Your task to perform on an android device: Empty the shopping cart on newegg. Add "logitech g933" to the cart on newegg Image 0: 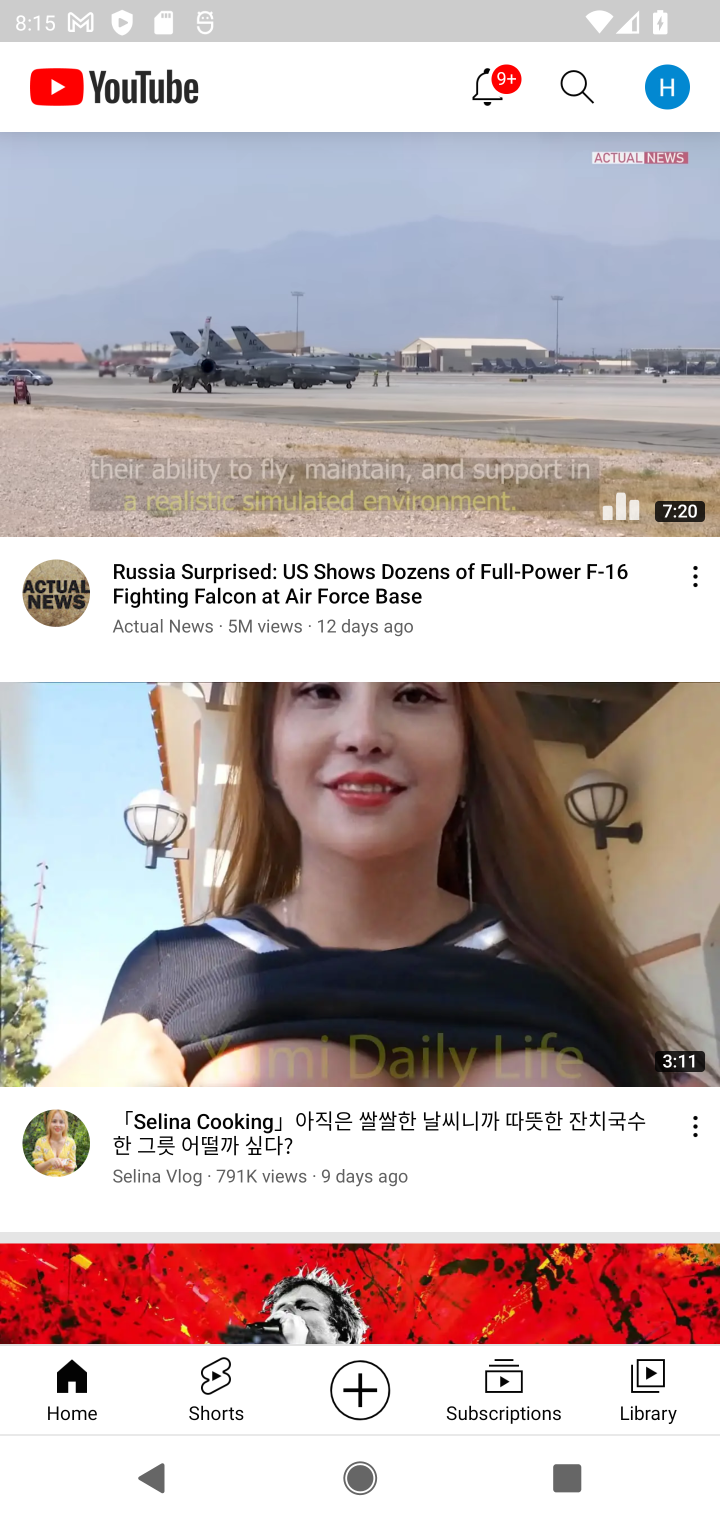
Step 0: press home button
Your task to perform on an android device: Empty the shopping cart on newegg. Add "logitech g933" to the cart on newegg Image 1: 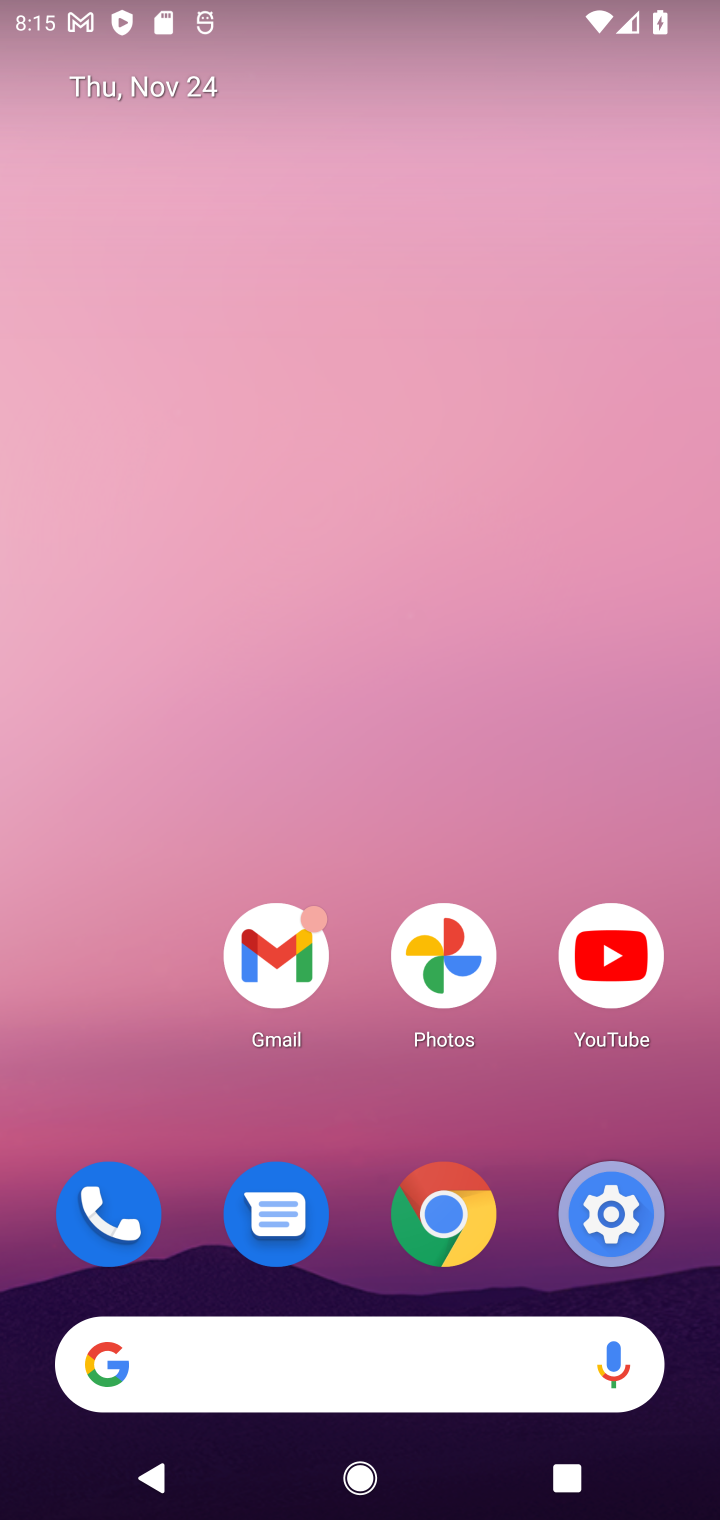
Step 1: click (284, 1361)
Your task to perform on an android device: Empty the shopping cart on newegg. Add "logitech g933" to the cart on newegg Image 2: 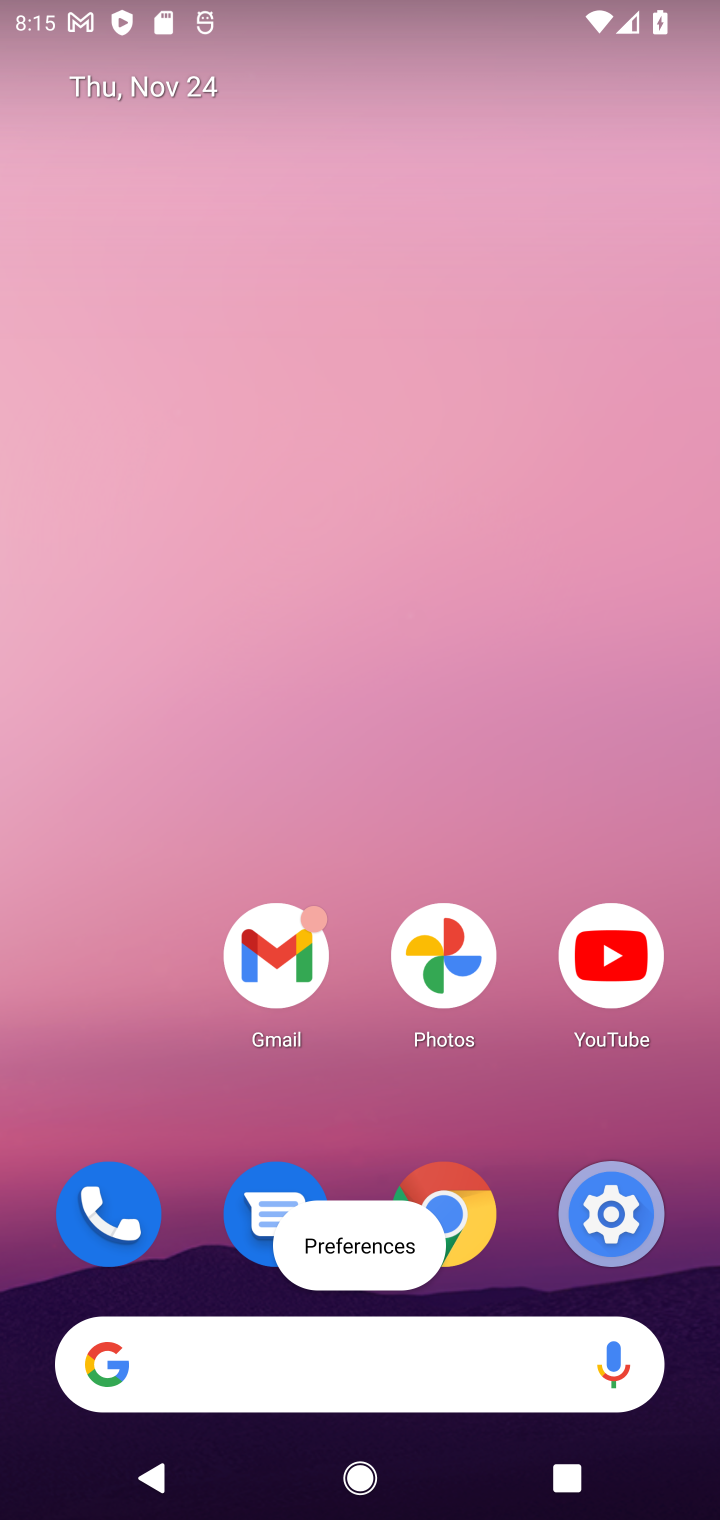
Step 2: type "newegg"
Your task to perform on an android device: Empty the shopping cart on newegg. Add "logitech g933" to the cart on newegg Image 3: 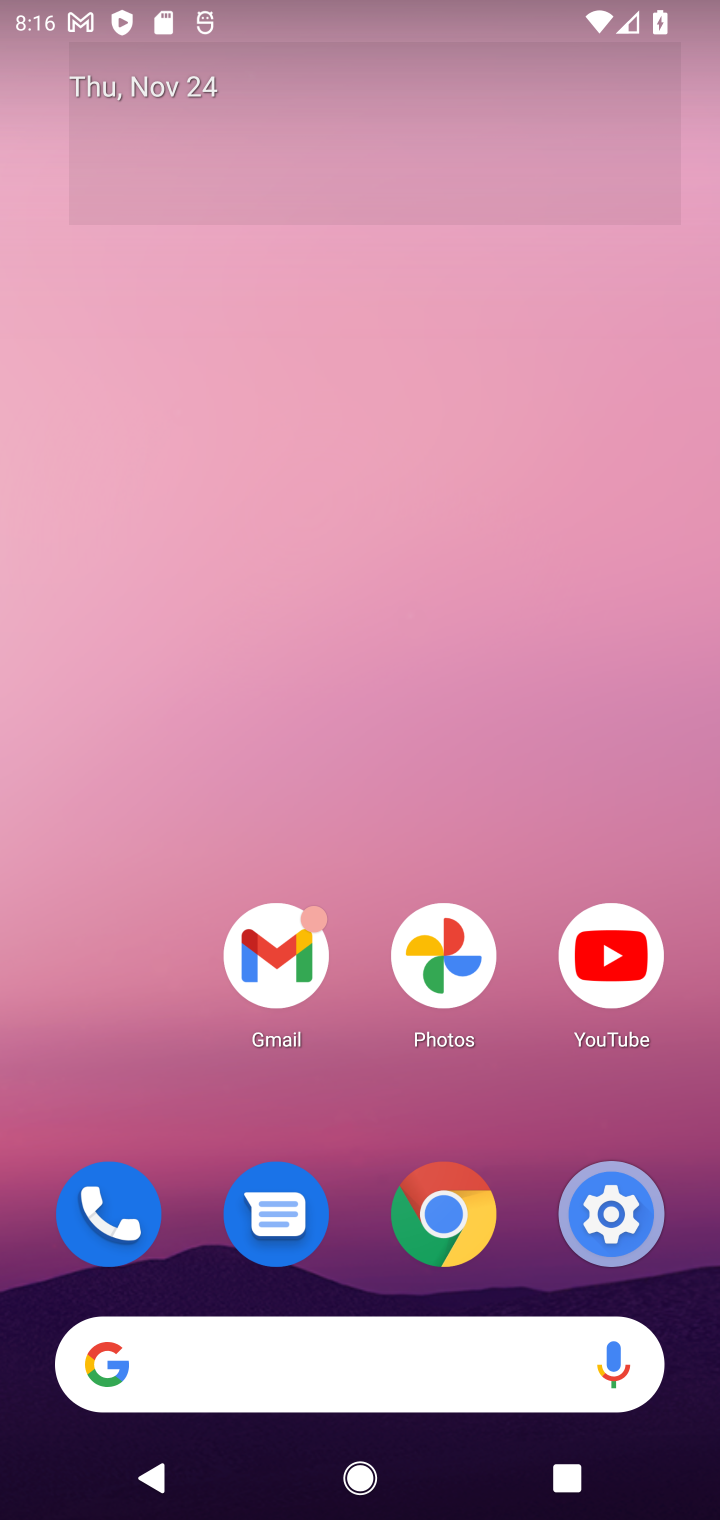
Step 3: click (372, 1405)
Your task to perform on an android device: Empty the shopping cart on newegg. Add "logitech g933" to the cart on newegg Image 4: 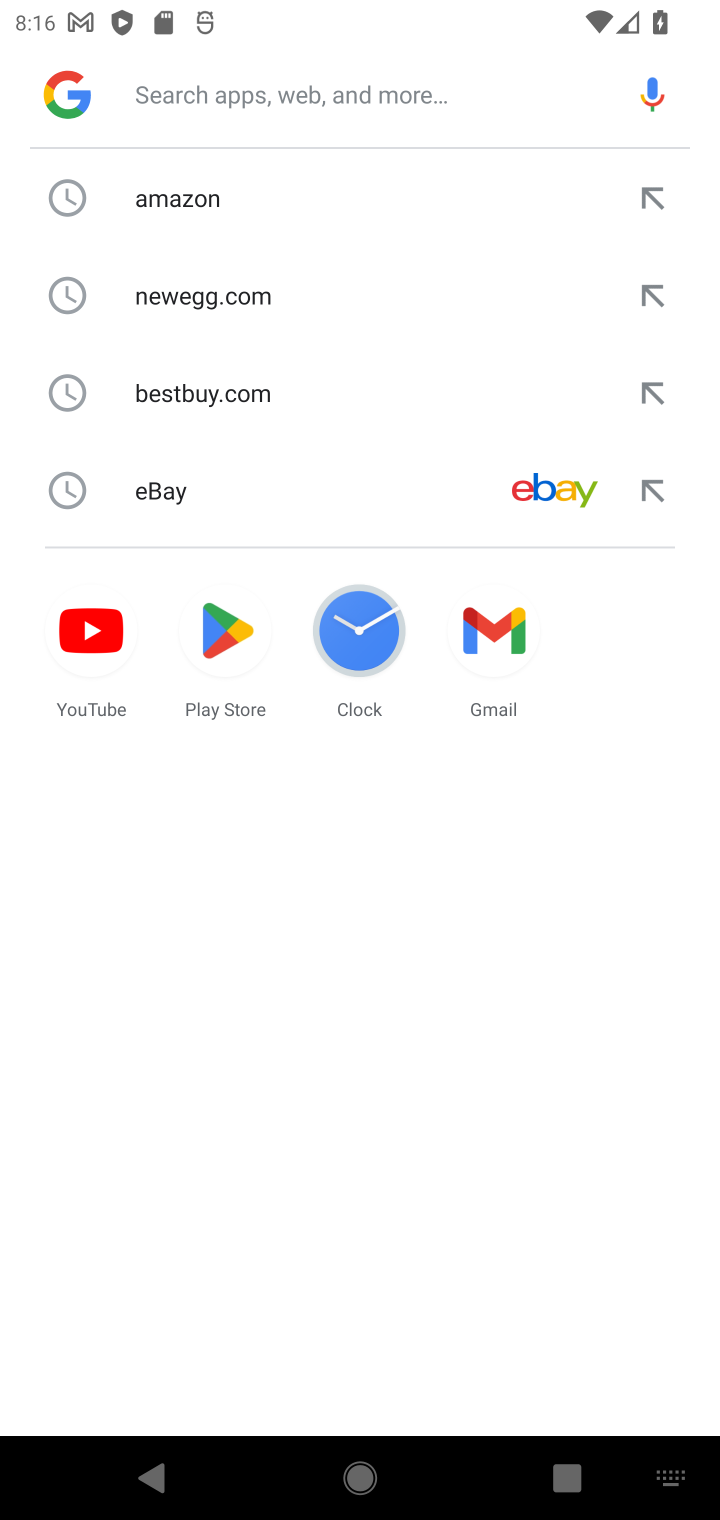
Step 4: click (288, 318)
Your task to perform on an android device: Empty the shopping cart on newegg. Add "logitech g933" to the cart on newegg Image 5: 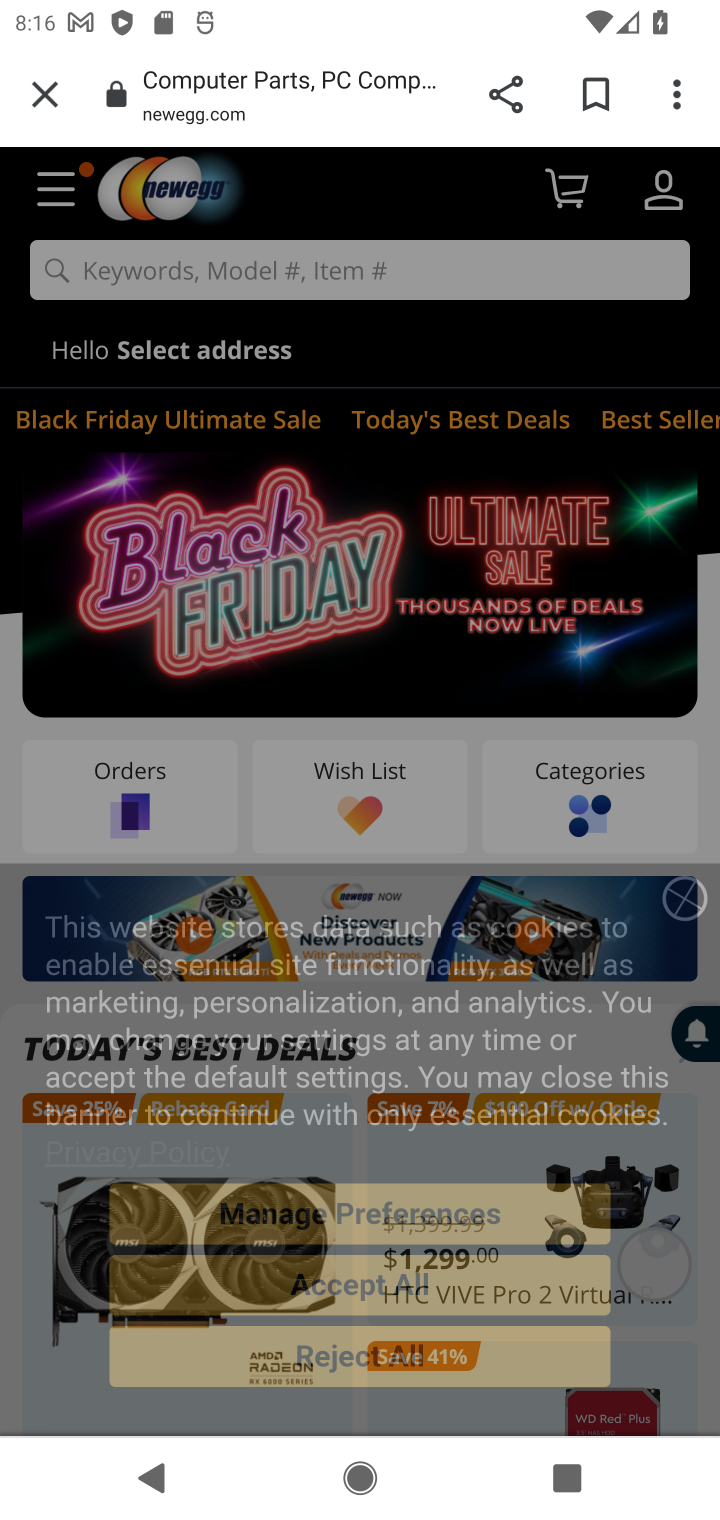
Step 5: click (352, 281)
Your task to perform on an android device: Empty the shopping cart on newegg. Add "logitech g933" to the cart on newegg Image 6: 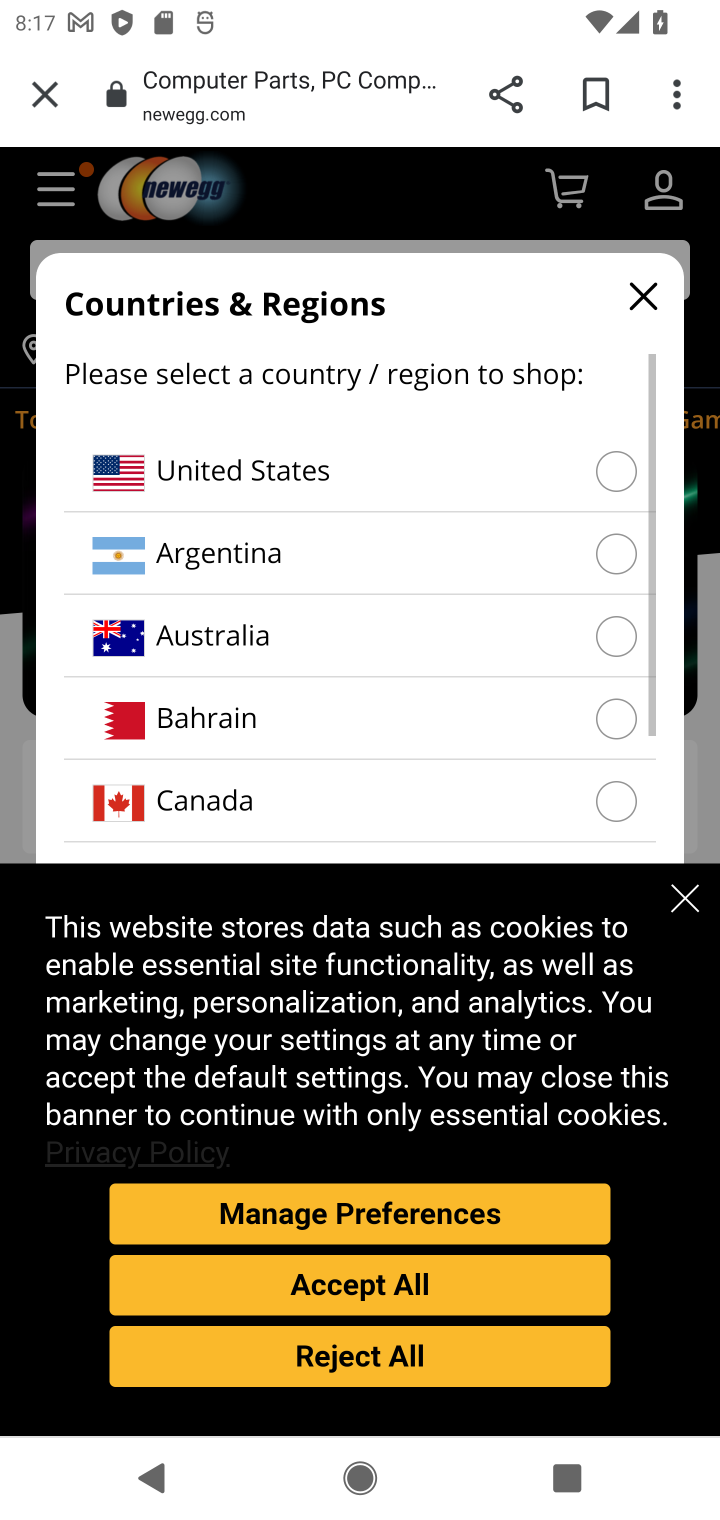
Step 6: click (654, 293)
Your task to perform on an android device: Empty the shopping cart on newegg. Add "logitech g933" to the cart on newegg Image 7: 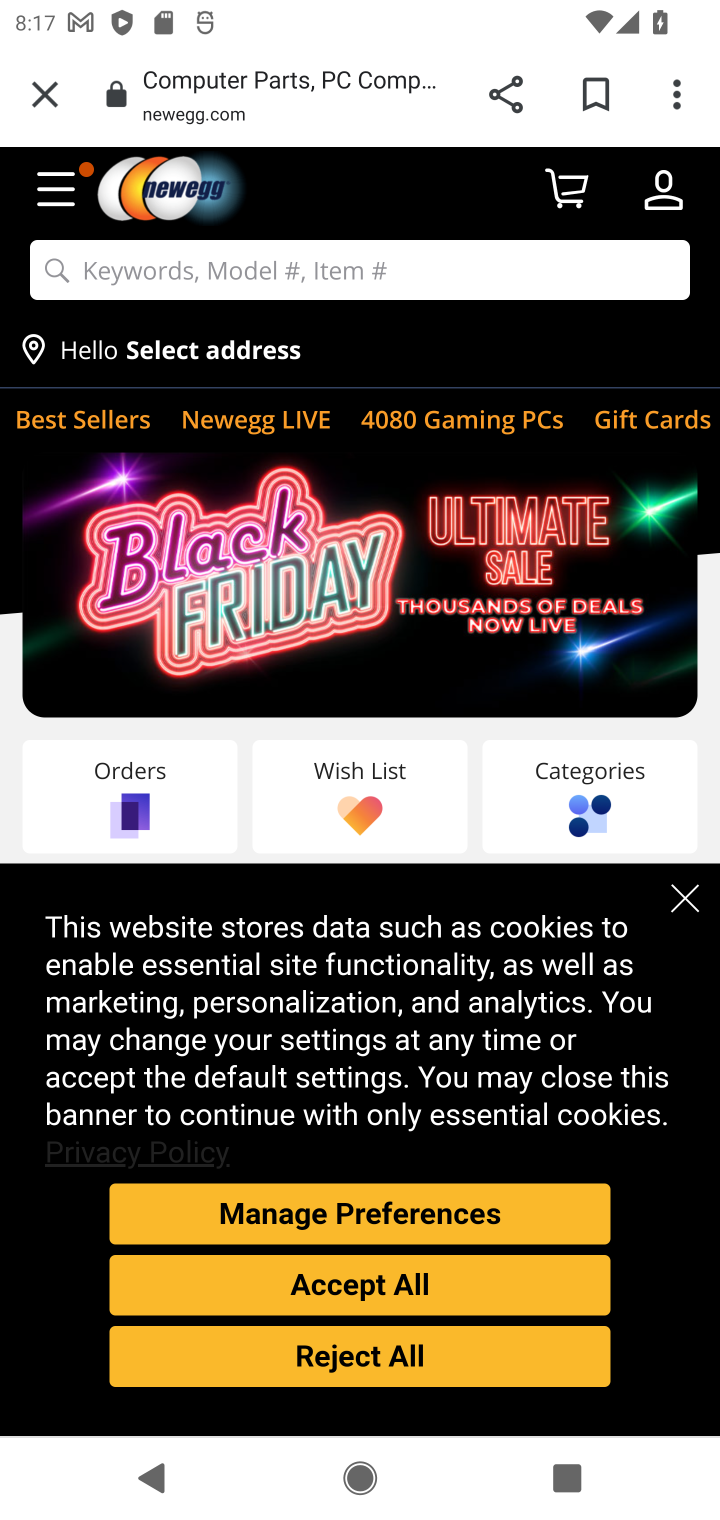
Step 7: click (689, 912)
Your task to perform on an android device: Empty the shopping cart on newegg. Add "logitech g933" to the cart on newegg Image 8: 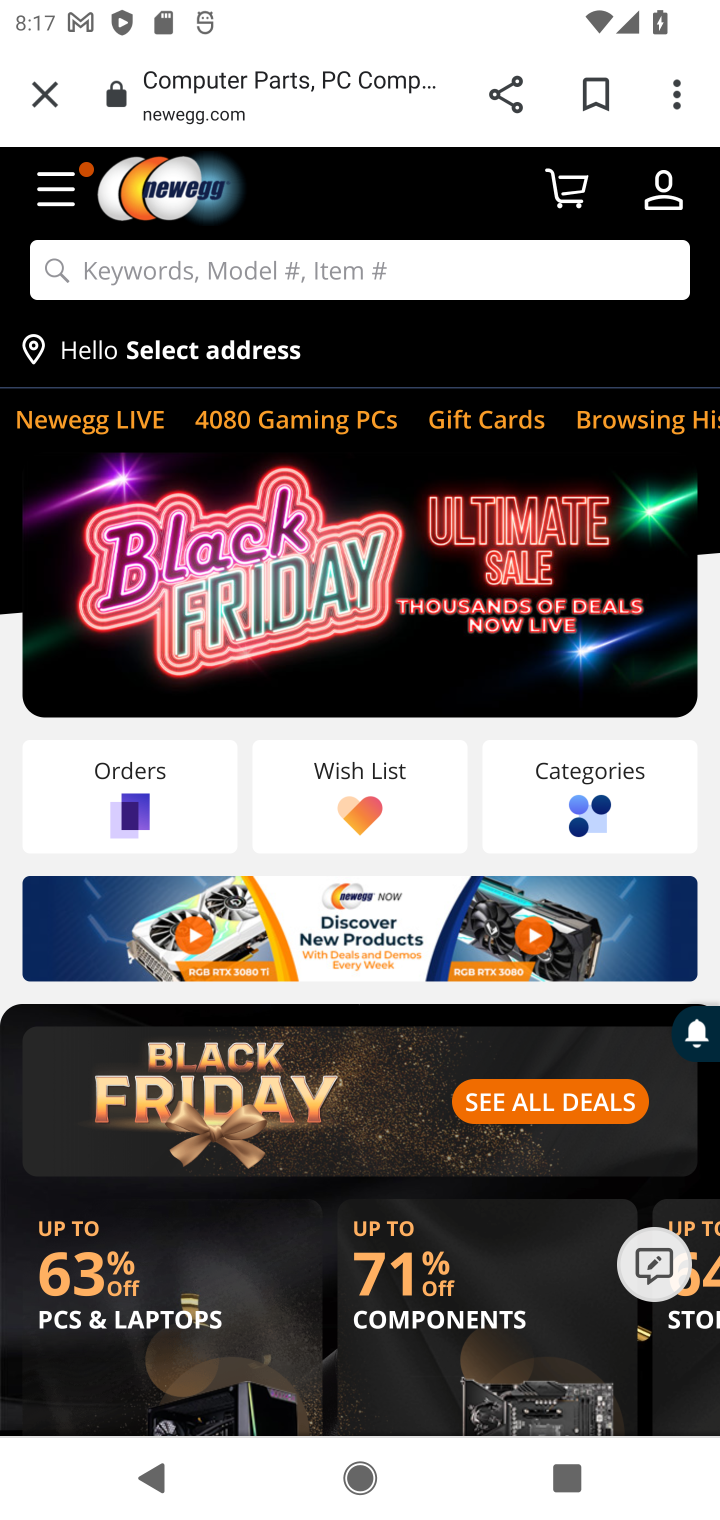
Step 8: click (367, 279)
Your task to perform on an android device: Empty the shopping cart on newegg. Add "logitech g933" to the cart on newegg Image 9: 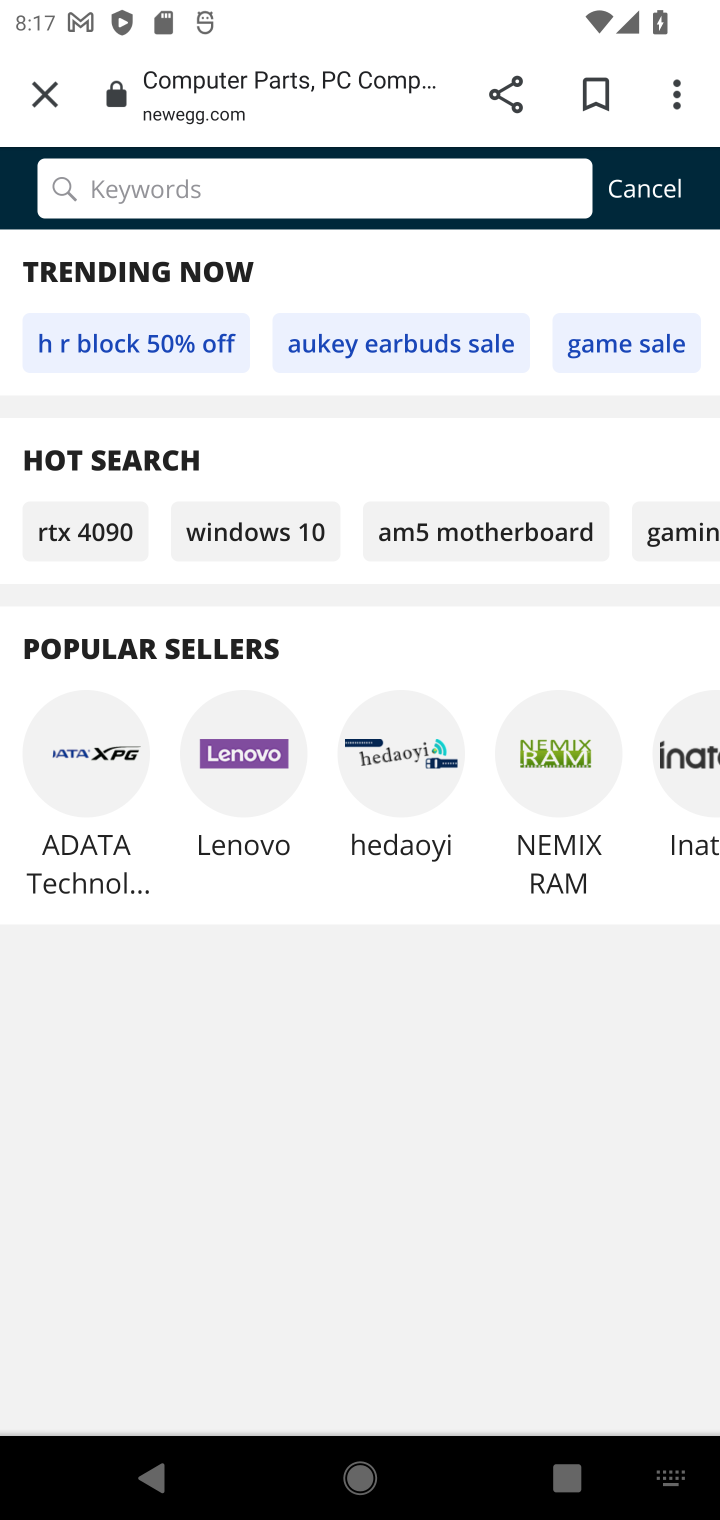
Step 9: type "logitech g933"
Your task to perform on an android device: Empty the shopping cart on newegg. Add "logitech g933" to the cart on newegg Image 10: 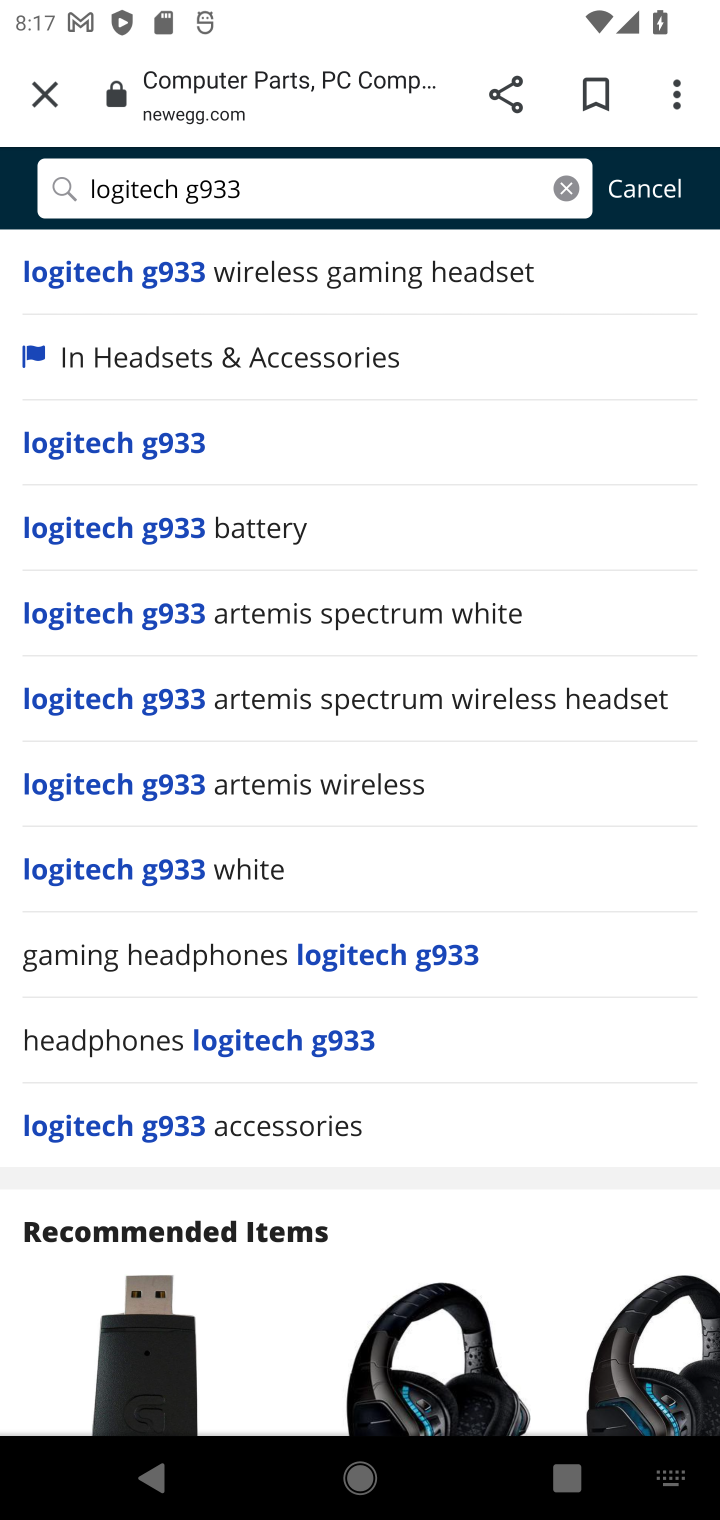
Step 10: click (280, 288)
Your task to perform on an android device: Empty the shopping cart on newegg. Add "logitech g933" to the cart on newegg Image 11: 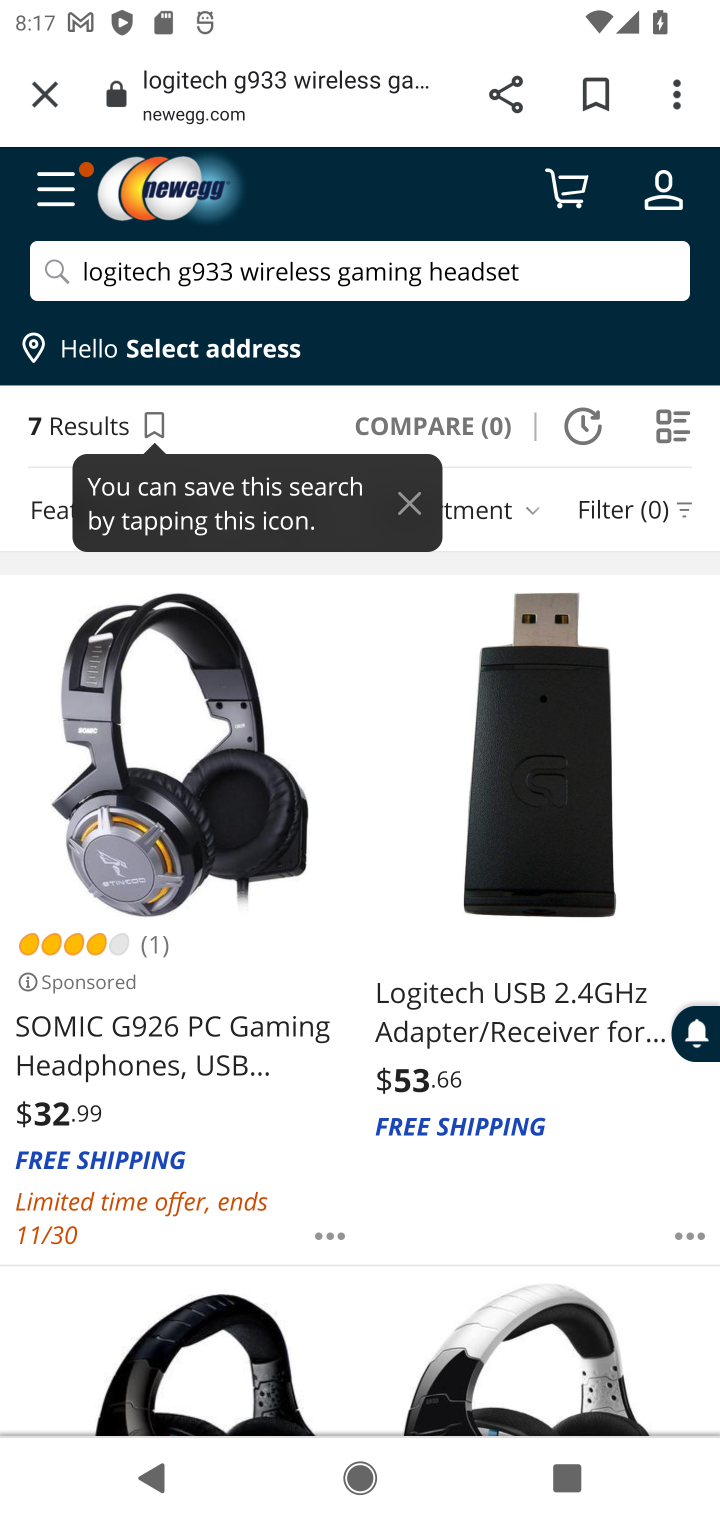
Step 11: drag from (385, 1241) to (376, 467)
Your task to perform on an android device: Empty the shopping cart on newegg. Add "logitech g933" to the cart on newegg Image 12: 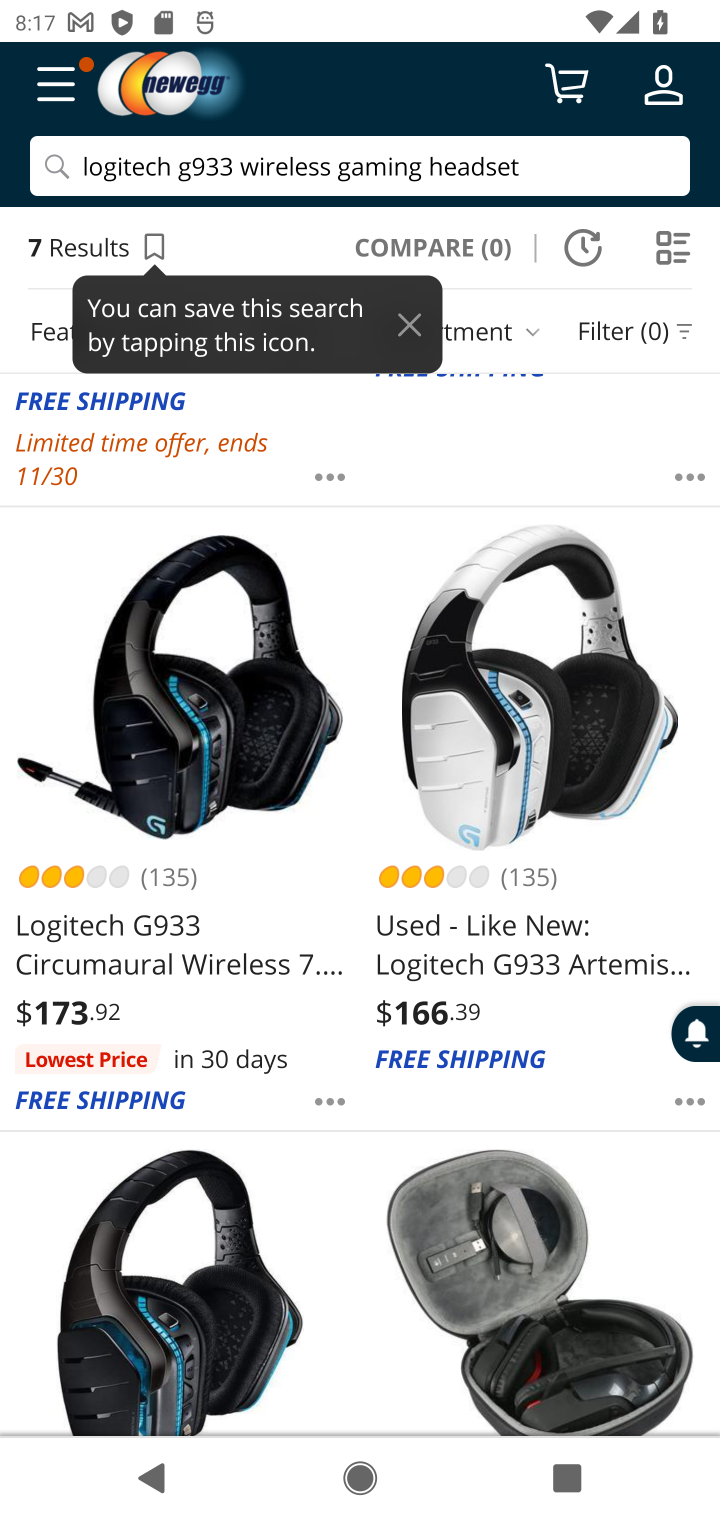
Step 12: click (130, 962)
Your task to perform on an android device: Empty the shopping cart on newegg. Add "logitech g933" to the cart on newegg Image 13: 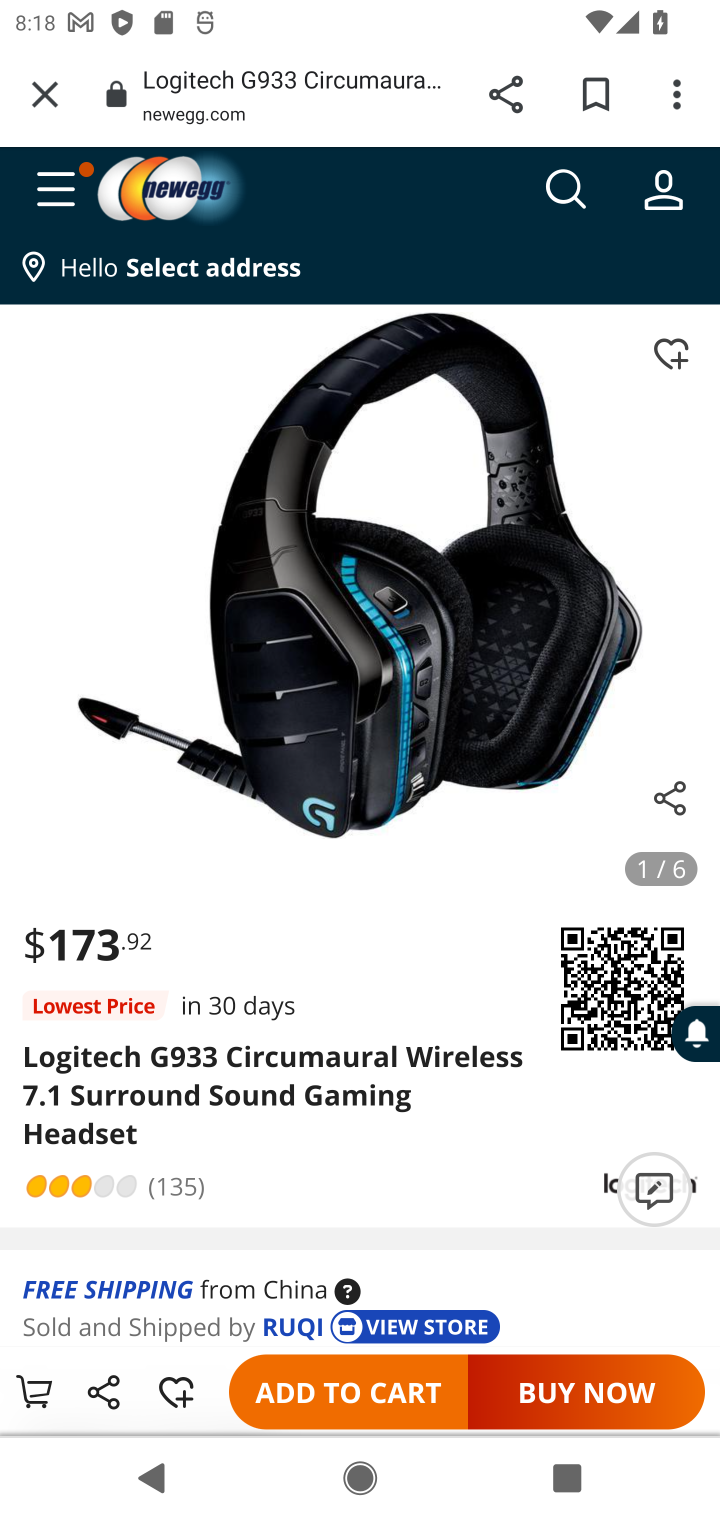
Step 13: click (359, 1393)
Your task to perform on an android device: Empty the shopping cart on newegg. Add "logitech g933" to the cart on newegg Image 14: 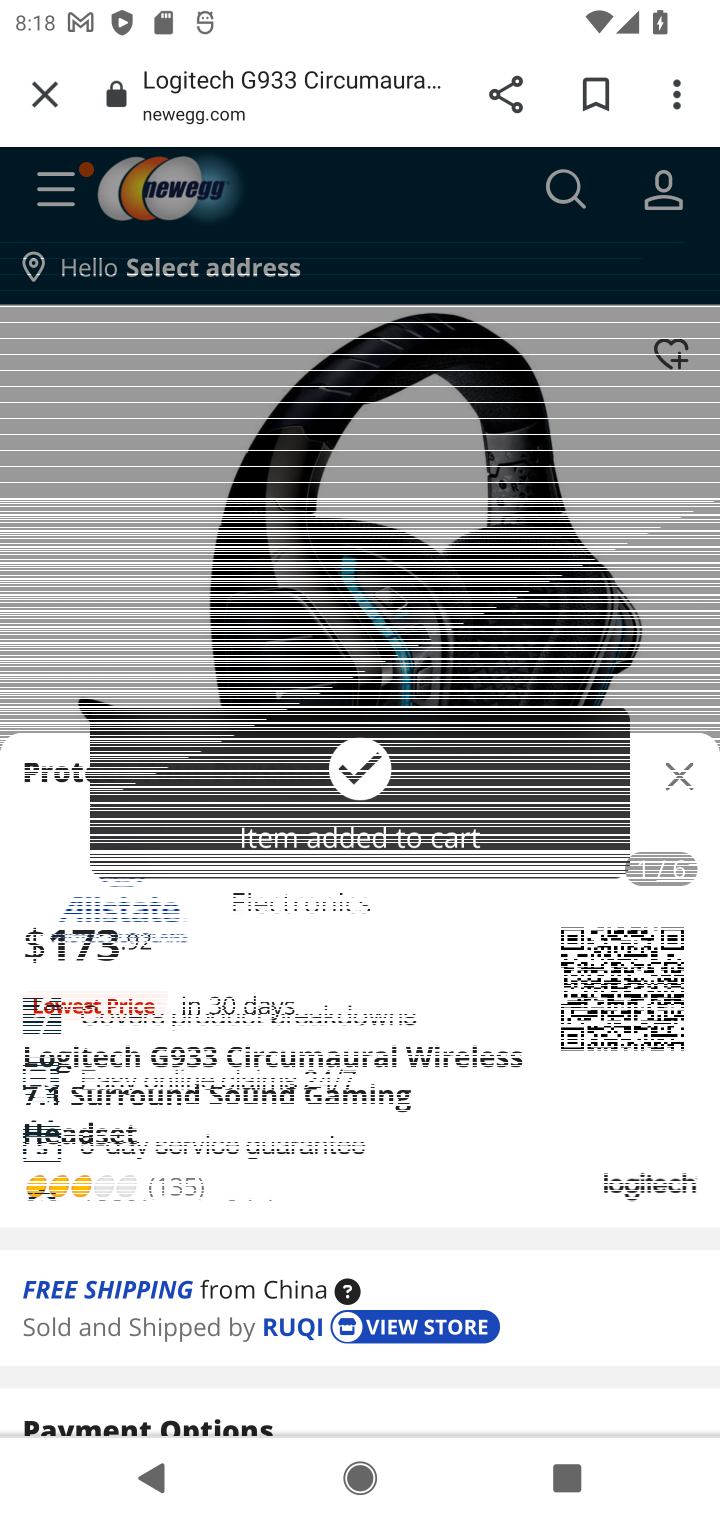
Step 14: task complete